Your task to perform on an android device: change the clock display to show seconds Image 0: 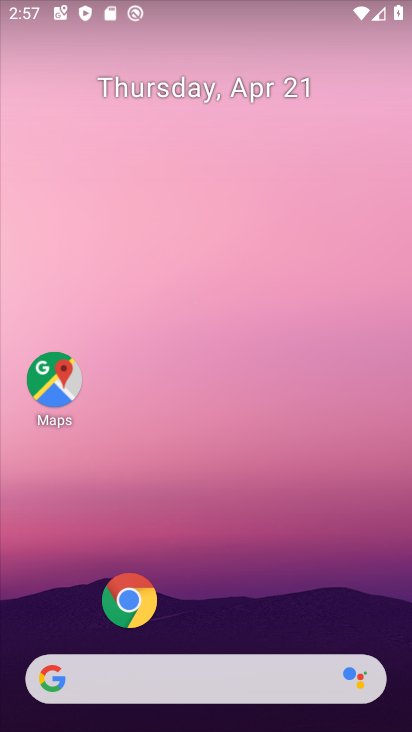
Step 0: drag from (214, 625) to (287, 284)
Your task to perform on an android device: change the clock display to show seconds Image 1: 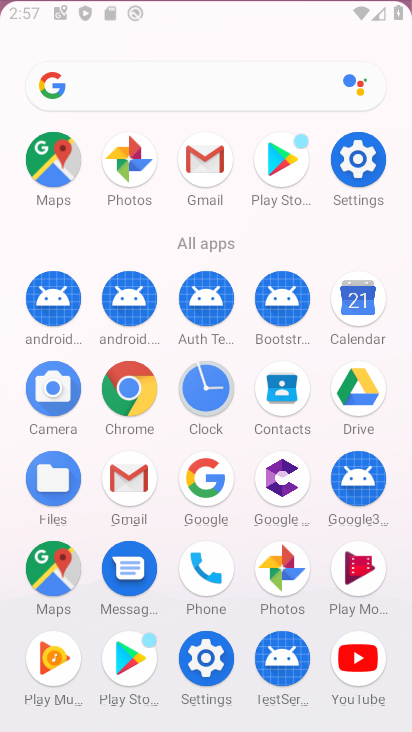
Step 1: drag from (230, 606) to (211, 224)
Your task to perform on an android device: change the clock display to show seconds Image 2: 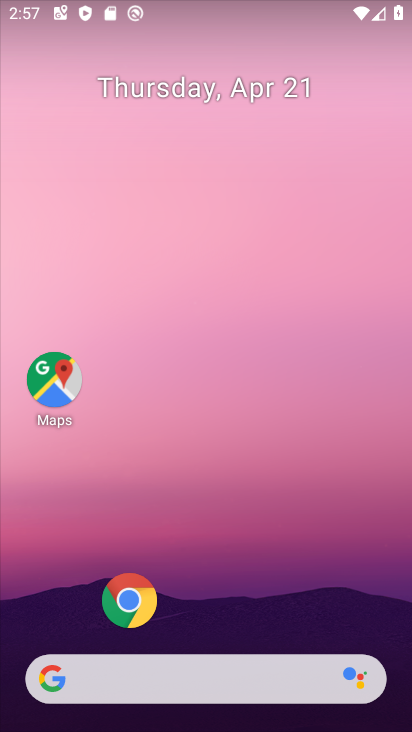
Step 2: drag from (217, 618) to (209, 200)
Your task to perform on an android device: change the clock display to show seconds Image 3: 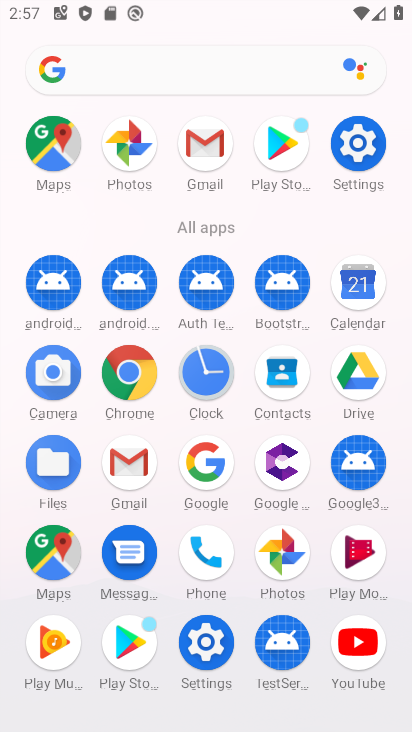
Step 3: drag from (194, 620) to (207, 365)
Your task to perform on an android device: change the clock display to show seconds Image 4: 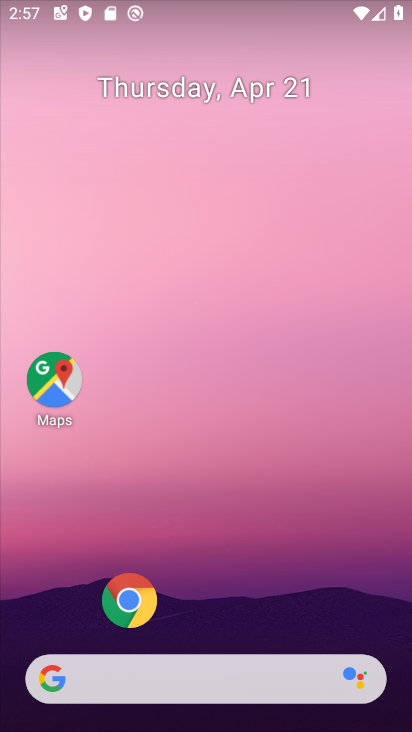
Step 4: click (207, 365)
Your task to perform on an android device: change the clock display to show seconds Image 5: 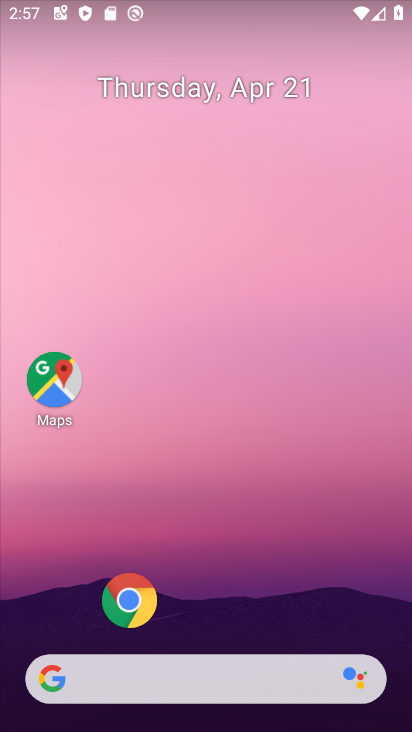
Step 5: drag from (236, 574) to (265, 159)
Your task to perform on an android device: change the clock display to show seconds Image 6: 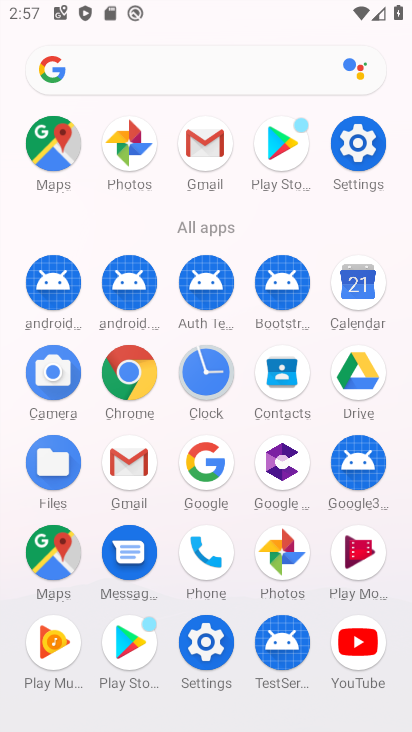
Step 6: click (211, 376)
Your task to perform on an android device: change the clock display to show seconds Image 7: 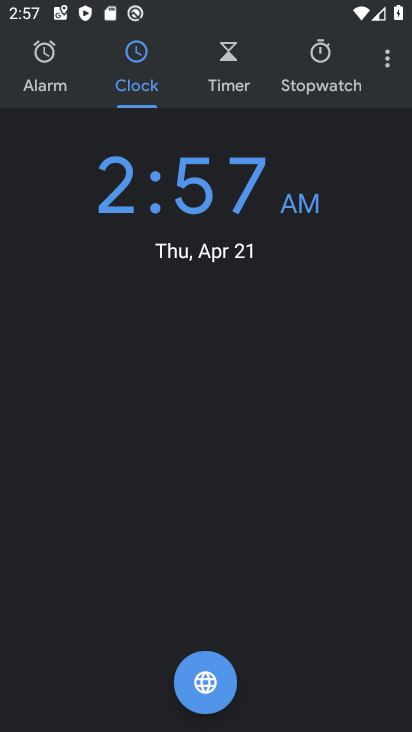
Step 7: click (391, 61)
Your task to perform on an android device: change the clock display to show seconds Image 8: 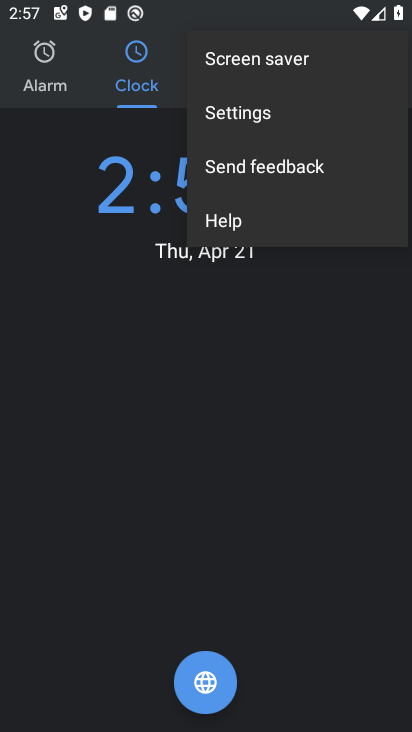
Step 8: click (295, 131)
Your task to perform on an android device: change the clock display to show seconds Image 9: 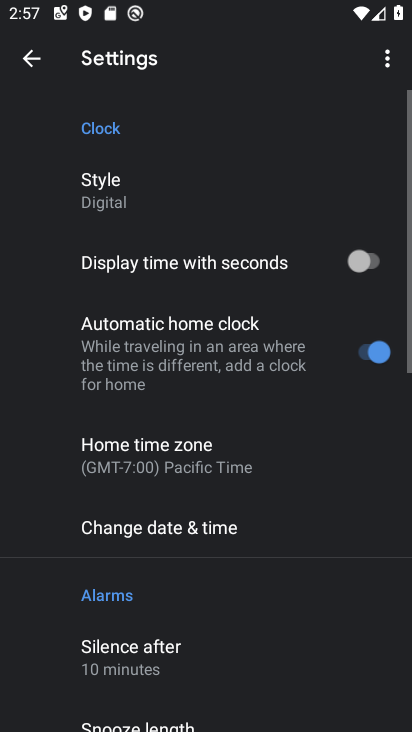
Step 9: click (352, 277)
Your task to perform on an android device: change the clock display to show seconds Image 10: 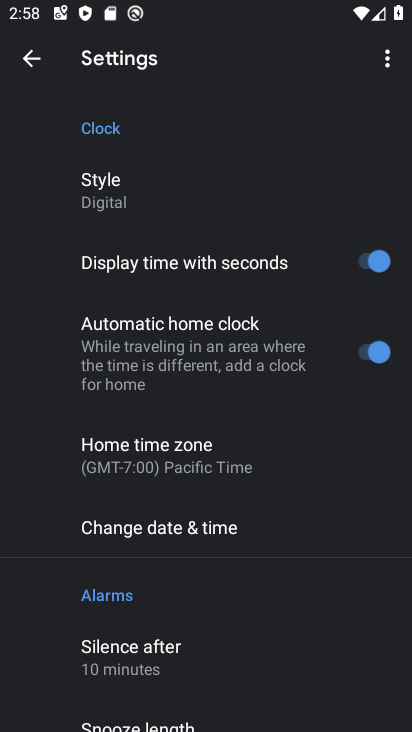
Step 10: task complete